Your task to perform on an android device: make emails show in primary in the gmail app Image 0: 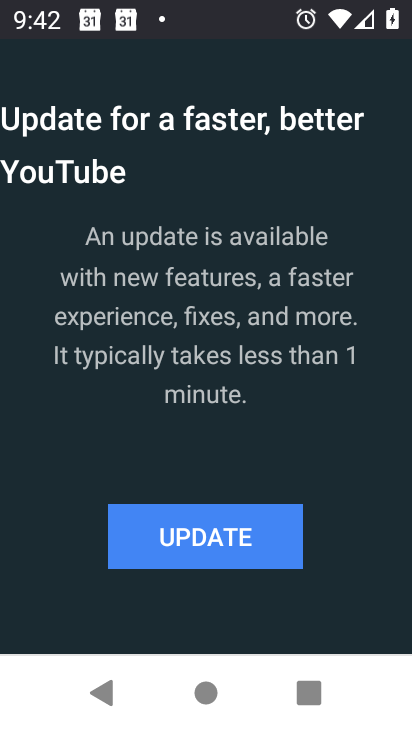
Step 0: drag from (331, 575) to (231, 132)
Your task to perform on an android device: make emails show in primary in the gmail app Image 1: 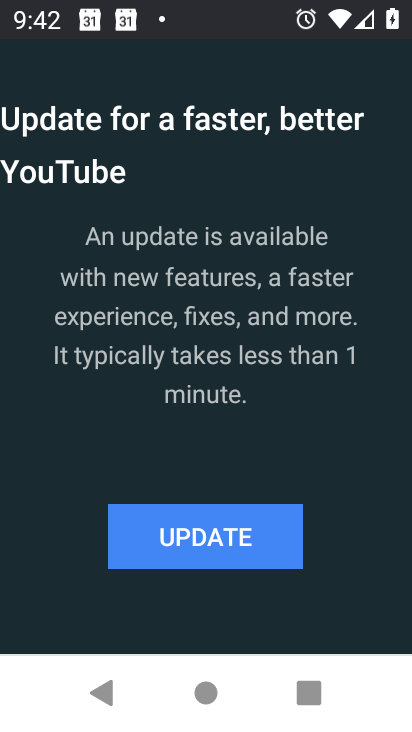
Step 1: press back button
Your task to perform on an android device: make emails show in primary in the gmail app Image 2: 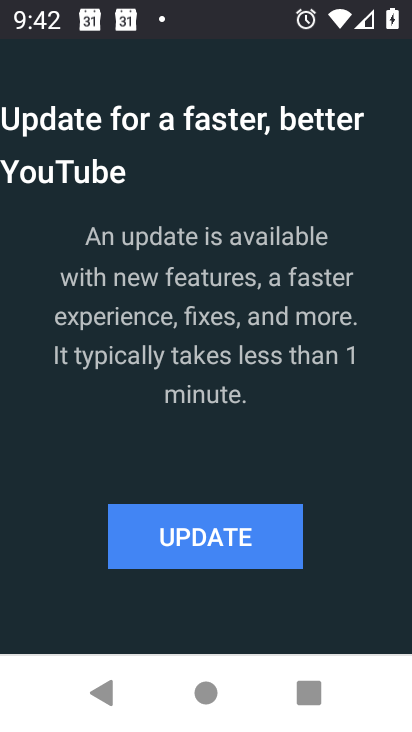
Step 2: press back button
Your task to perform on an android device: make emails show in primary in the gmail app Image 3: 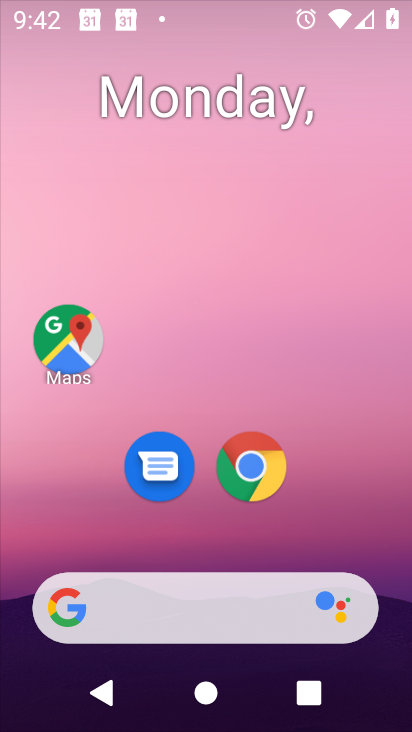
Step 3: press back button
Your task to perform on an android device: make emails show in primary in the gmail app Image 4: 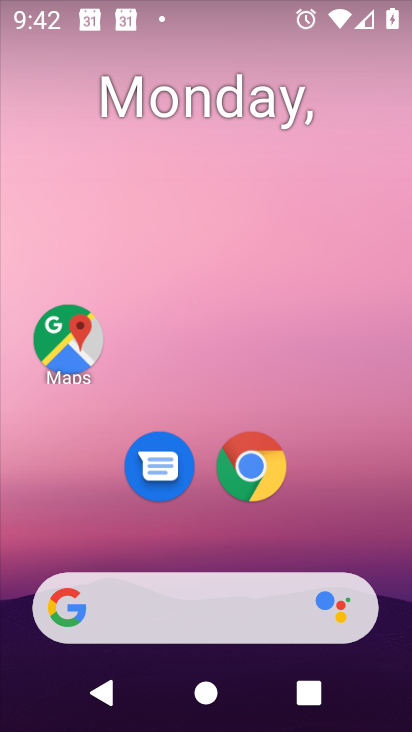
Step 4: drag from (351, 572) to (394, 525)
Your task to perform on an android device: make emails show in primary in the gmail app Image 5: 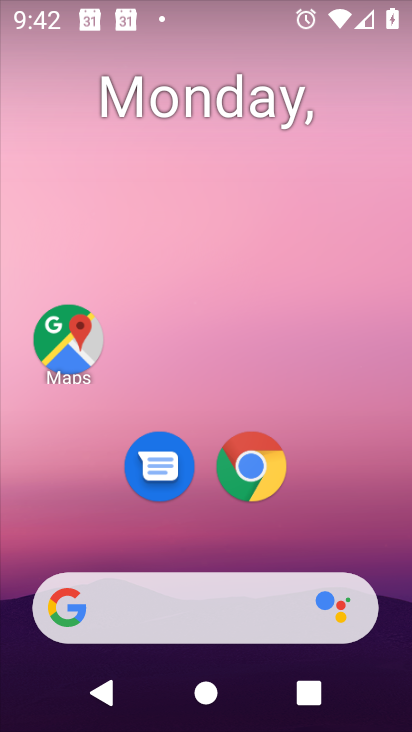
Step 5: drag from (381, 581) to (261, 6)
Your task to perform on an android device: make emails show in primary in the gmail app Image 6: 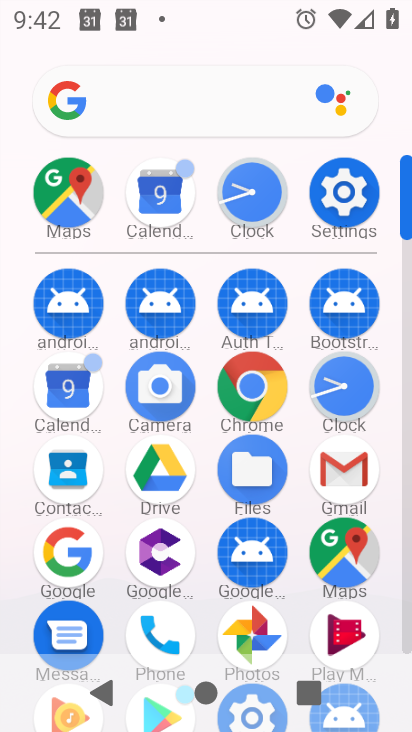
Step 6: click (338, 470)
Your task to perform on an android device: make emails show in primary in the gmail app Image 7: 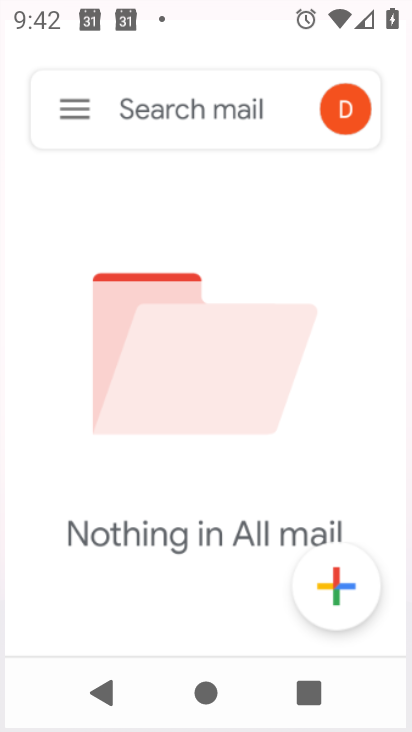
Step 7: click (339, 462)
Your task to perform on an android device: make emails show in primary in the gmail app Image 8: 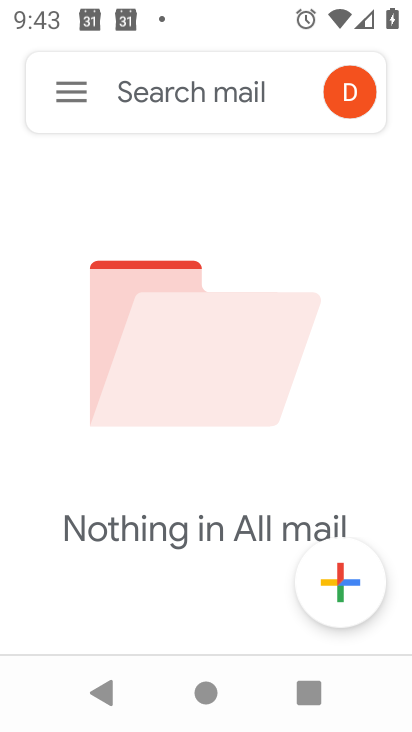
Step 8: click (63, 88)
Your task to perform on an android device: make emails show in primary in the gmail app Image 9: 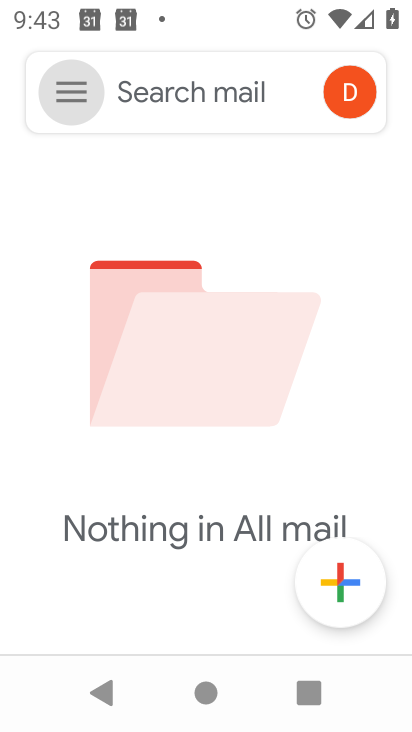
Step 9: click (64, 90)
Your task to perform on an android device: make emails show in primary in the gmail app Image 10: 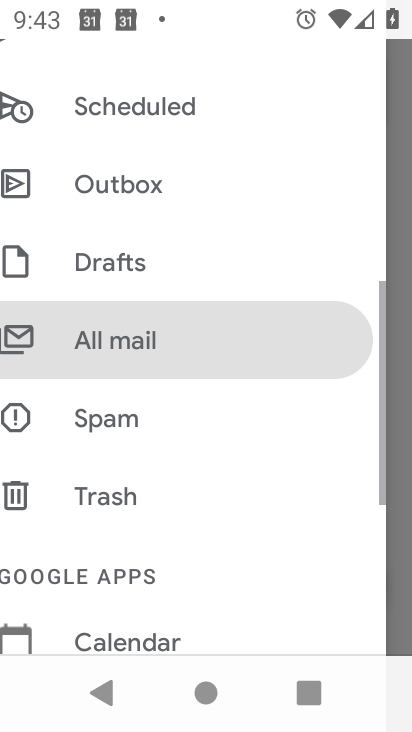
Step 10: click (64, 90)
Your task to perform on an android device: make emails show in primary in the gmail app Image 11: 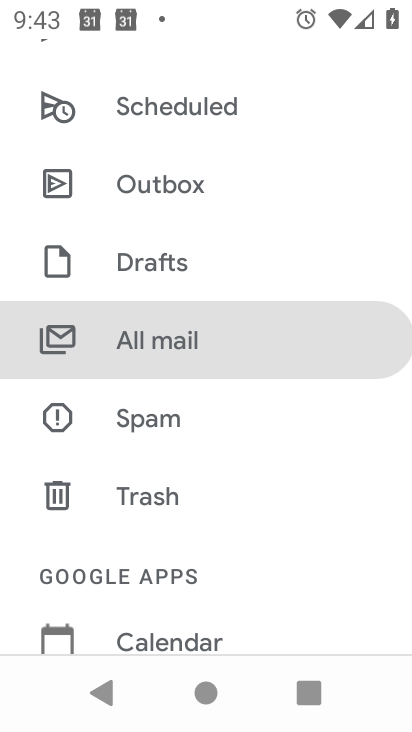
Step 11: click (64, 90)
Your task to perform on an android device: make emails show in primary in the gmail app Image 12: 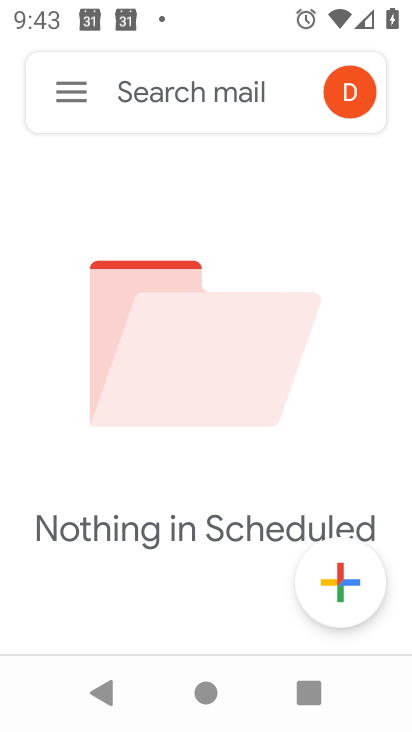
Step 12: click (65, 87)
Your task to perform on an android device: make emails show in primary in the gmail app Image 13: 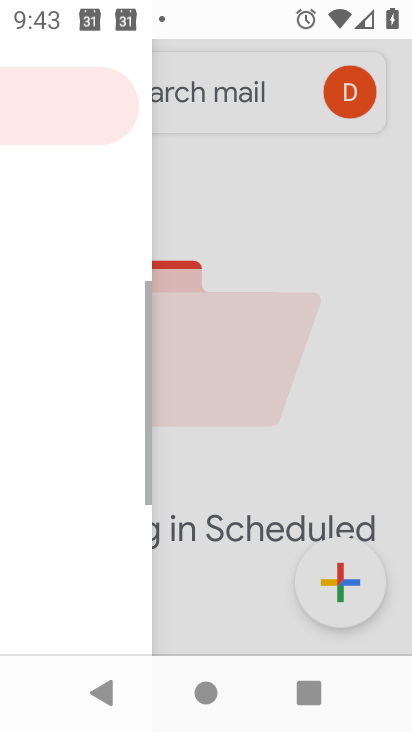
Step 13: click (69, 87)
Your task to perform on an android device: make emails show in primary in the gmail app Image 14: 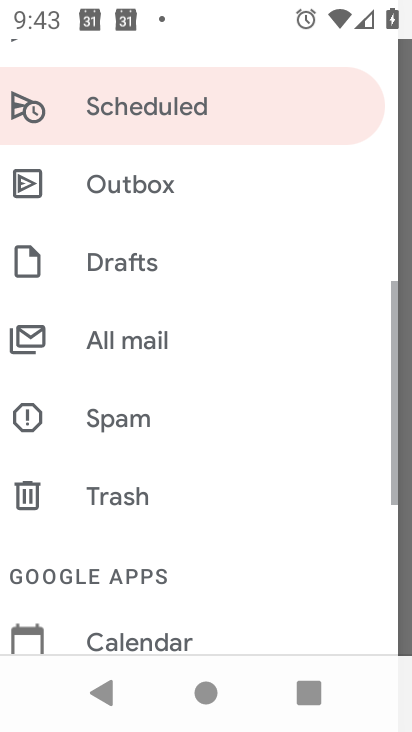
Step 14: click (72, 91)
Your task to perform on an android device: make emails show in primary in the gmail app Image 15: 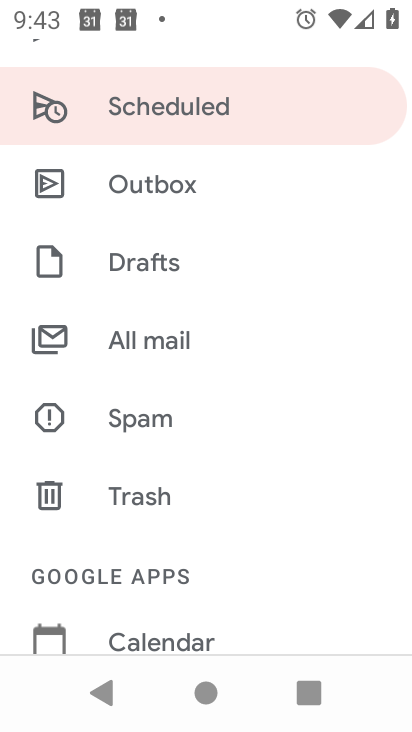
Step 15: click (76, 91)
Your task to perform on an android device: make emails show in primary in the gmail app Image 16: 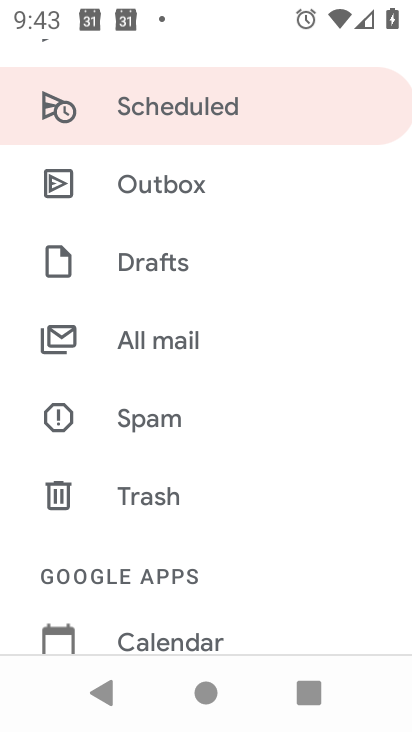
Step 16: click (168, 339)
Your task to perform on an android device: make emails show in primary in the gmail app Image 17: 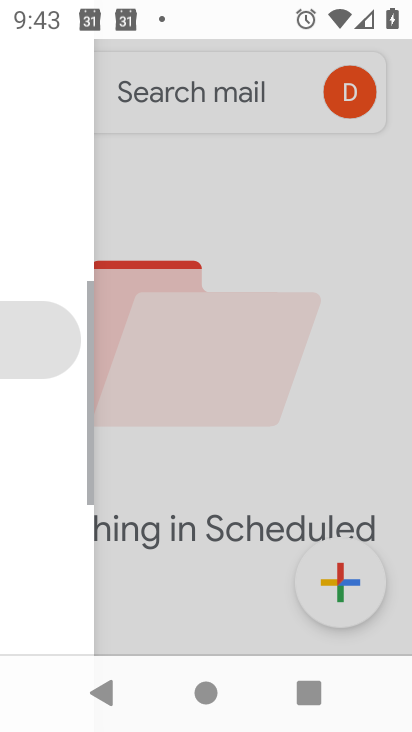
Step 17: click (167, 340)
Your task to perform on an android device: make emails show in primary in the gmail app Image 18: 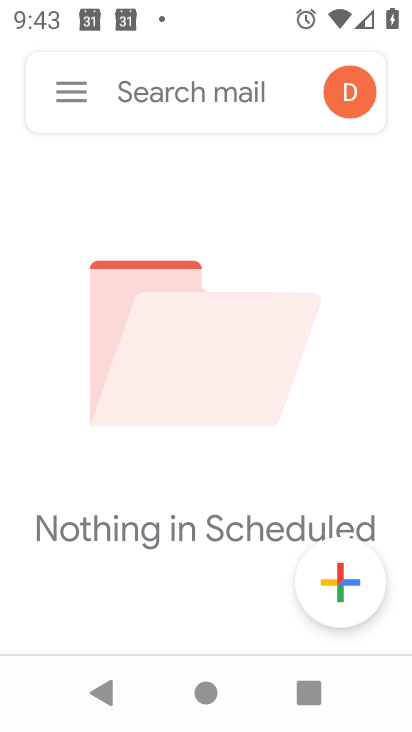
Step 18: click (167, 340)
Your task to perform on an android device: make emails show in primary in the gmail app Image 19: 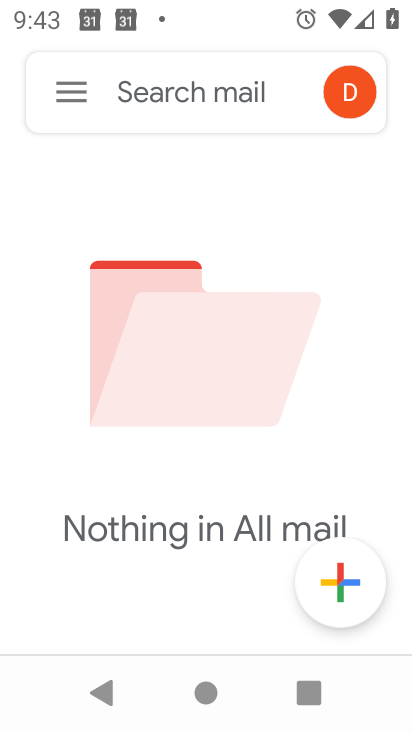
Step 19: task complete